Your task to perform on an android device: check android version Image 0: 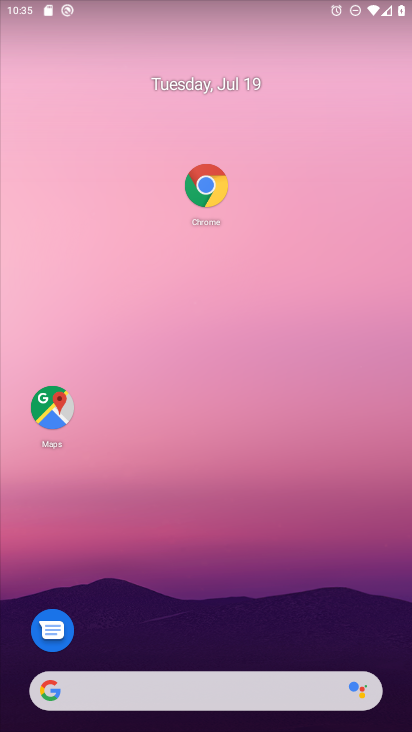
Step 0: click (206, 150)
Your task to perform on an android device: check android version Image 1: 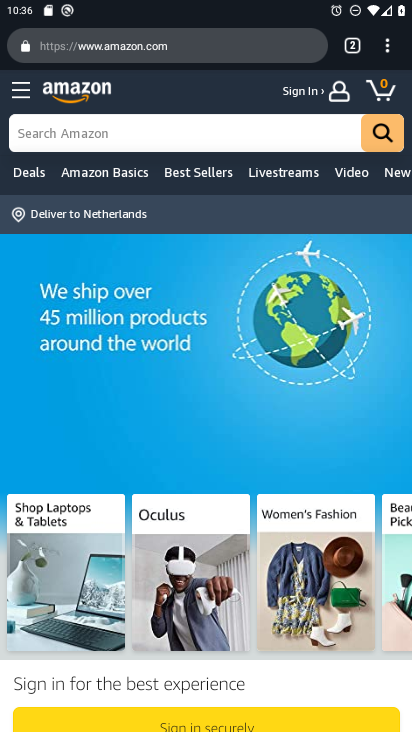
Step 1: click (391, 53)
Your task to perform on an android device: check android version Image 2: 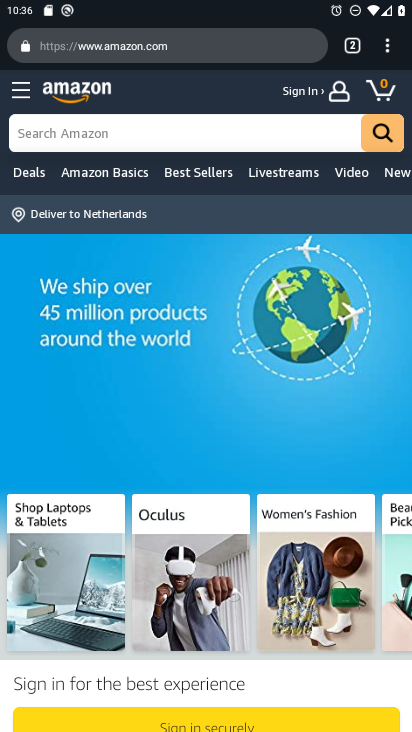
Step 2: click (393, 66)
Your task to perform on an android device: check android version Image 3: 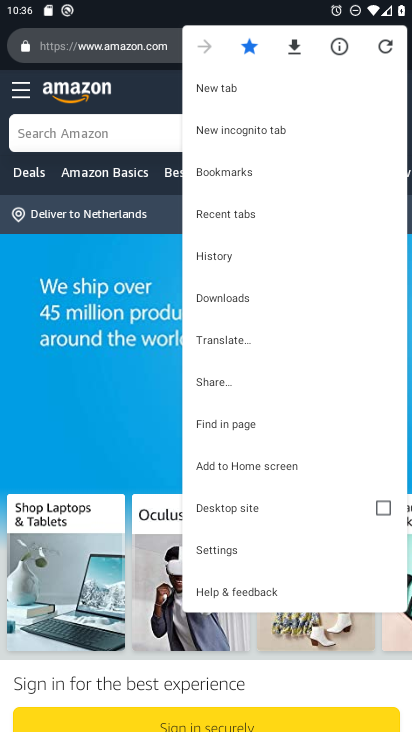
Step 3: press home button
Your task to perform on an android device: check android version Image 4: 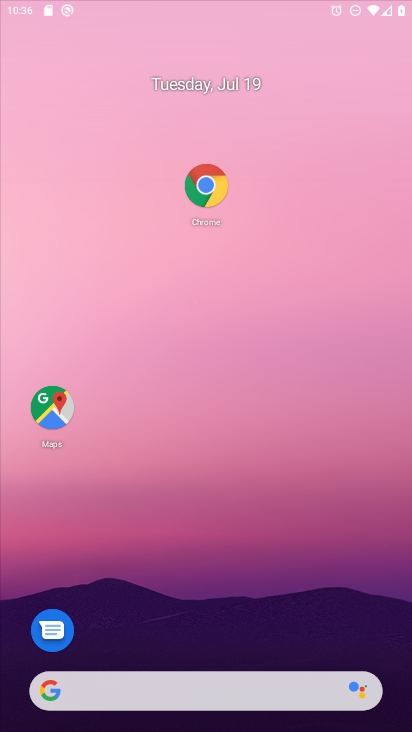
Step 4: drag from (158, 650) to (273, 164)
Your task to perform on an android device: check android version Image 5: 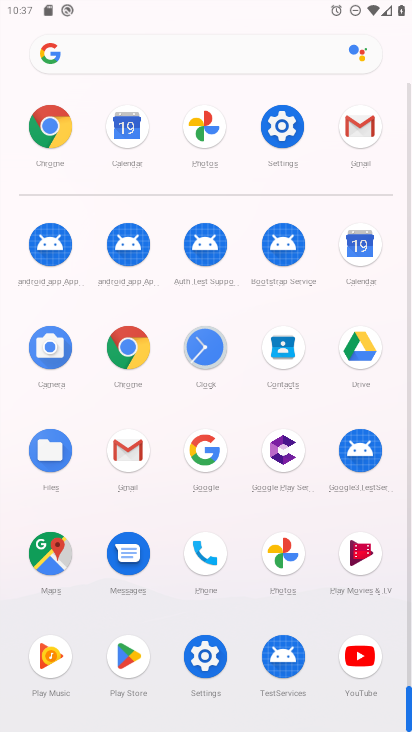
Step 5: click (278, 149)
Your task to perform on an android device: check android version Image 6: 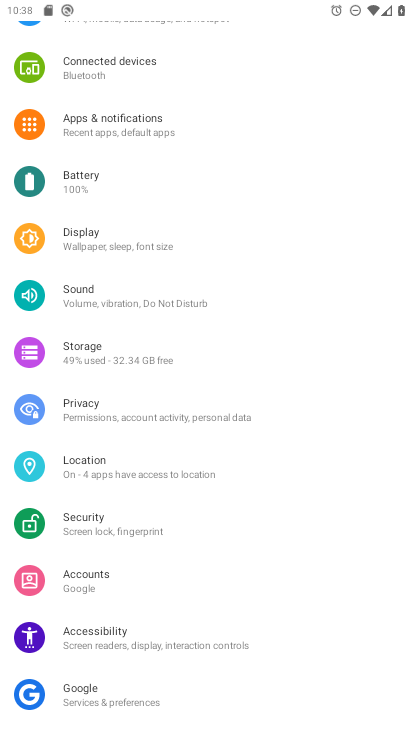
Step 6: drag from (131, 474) to (301, 6)
Your task to perform on an android device: check android version Image 7: 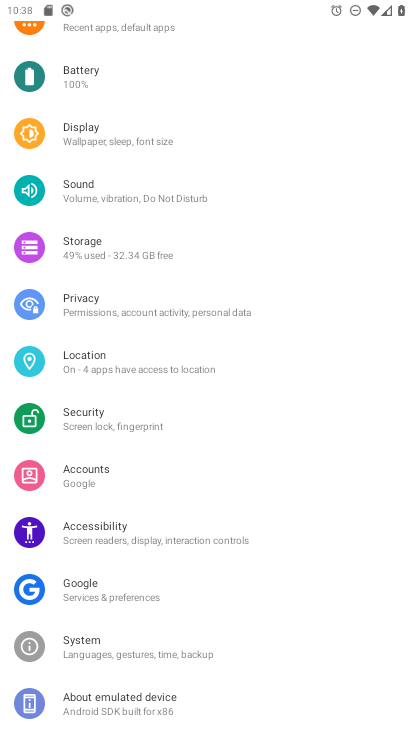
Step 7: click (164, 702)
Your task to perform on an android device: check android version Image 8: 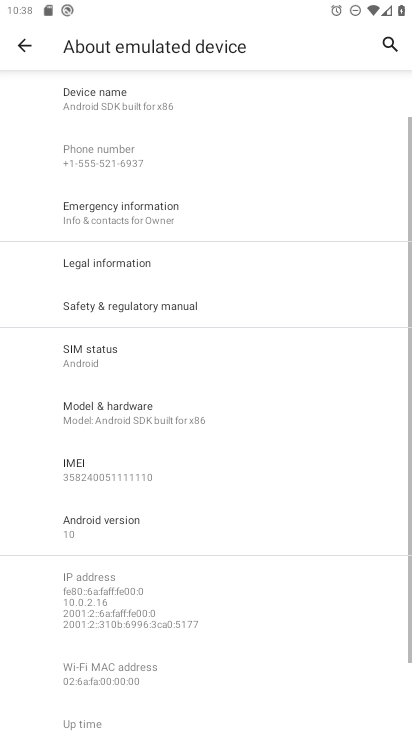
Step 8: click (187, 528)
Your task to perform on an android device: check android version Image 9: 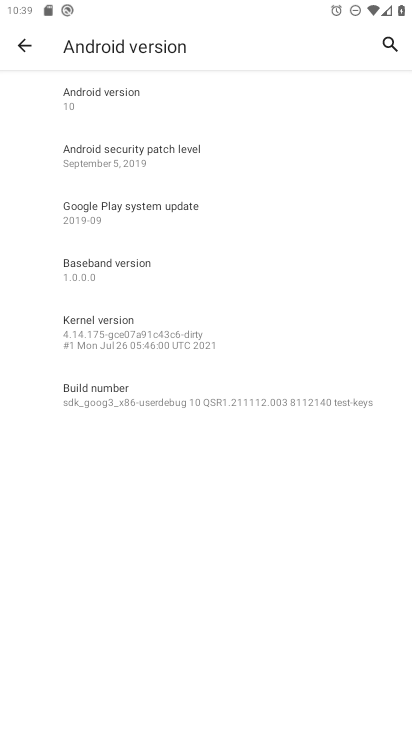
Step 9: task complete